Your task to perform on an android device: turn off notifications settings in the gmail app Image 0: 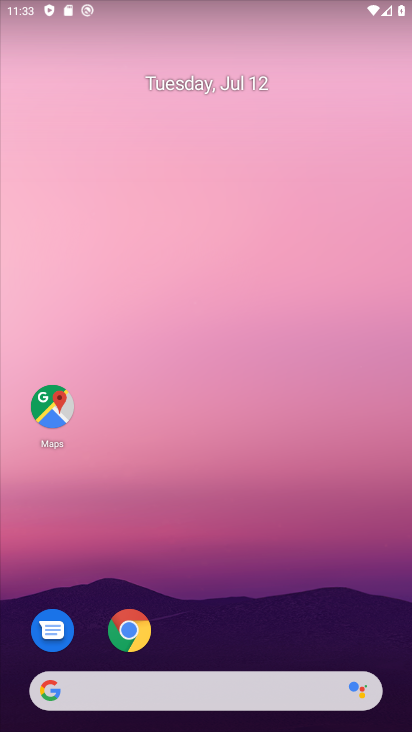
Step 0: drag from (266, 632) to (237, 9)
Your task to perform on an android device: turn off notifications settings in the gmail app Image 1: 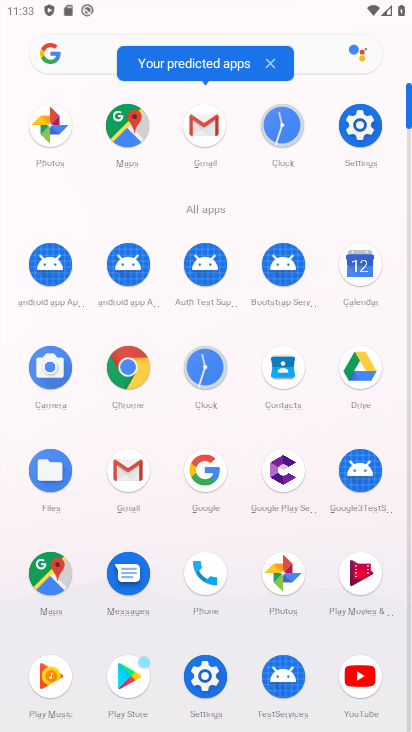
Step 1: click (210, 126)
Your task to perform on an android device: turn off notifications settings in the gmail app Image 2: 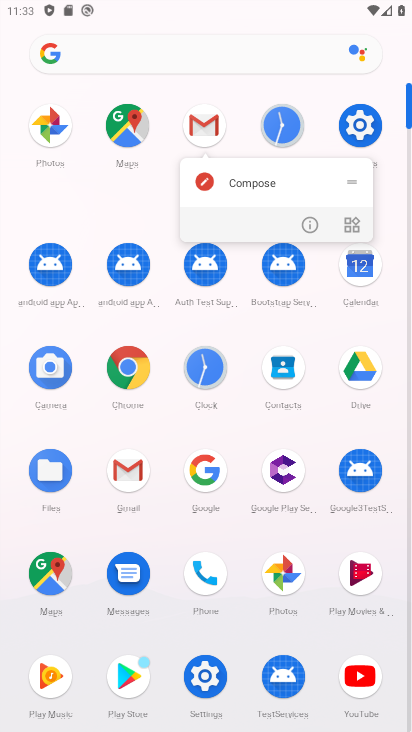
Step 2: click (300, 220)
Your task to perform on an android device: turn off notifications settings in the gmail app Image 3: 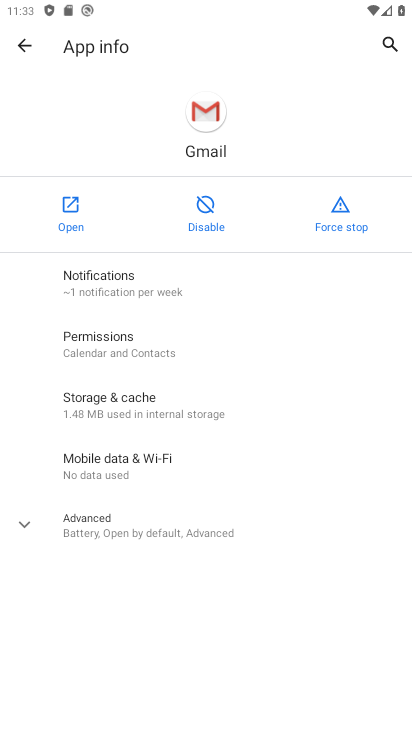
Step 3: click (181, 276)
Your task to perform on an android device: turn off notifications settings in the gmail app Image 4: 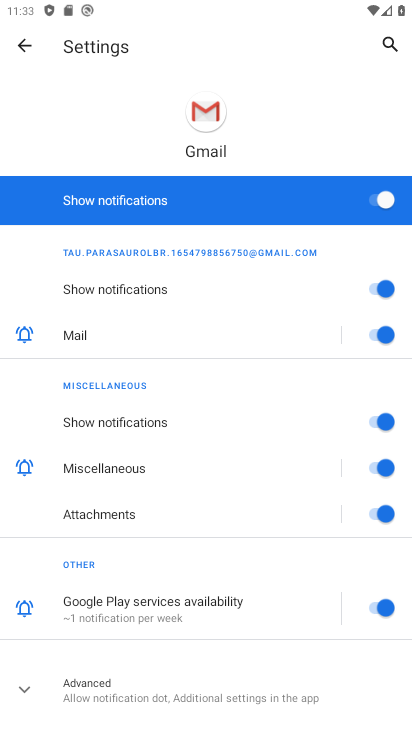
Step 4: click (388, 190)
Your task to perform on an android device: turn off notifications settings in the gmail app Image 5: 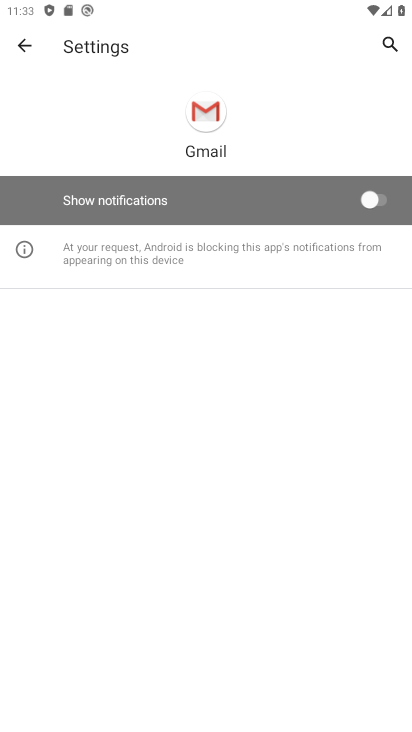
Step 5: task complete